Your task to perform on an android device: check battery use Image 0: 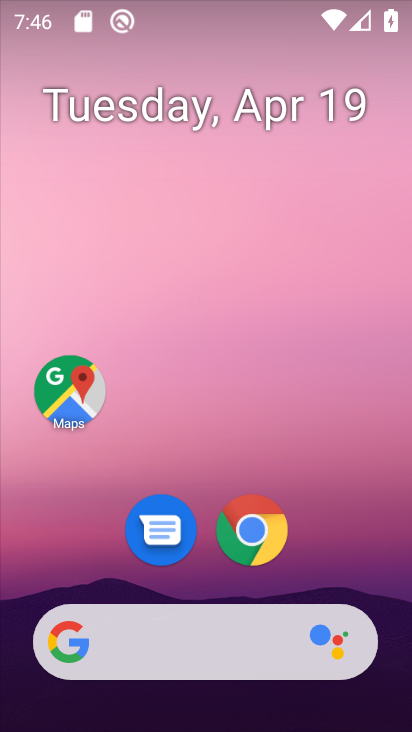
Step 0: drag from (231, 505) to (305, 180)
Your task to perform on an android device: check battery use Image 1: 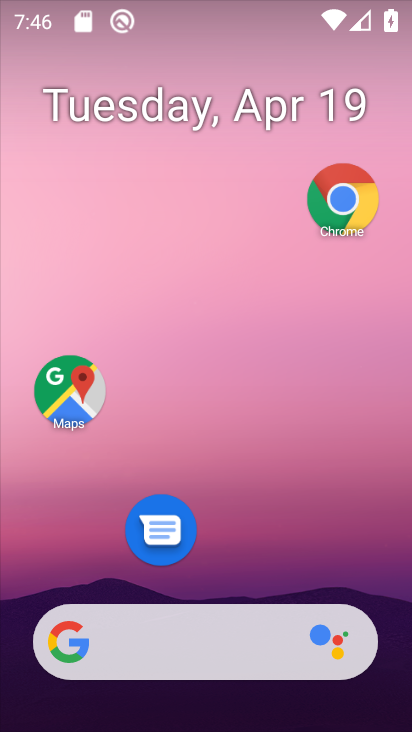
Step 1: drag from (214, 583) to (274, 151)
Your task to perform on an android device: check battery use Image 2: 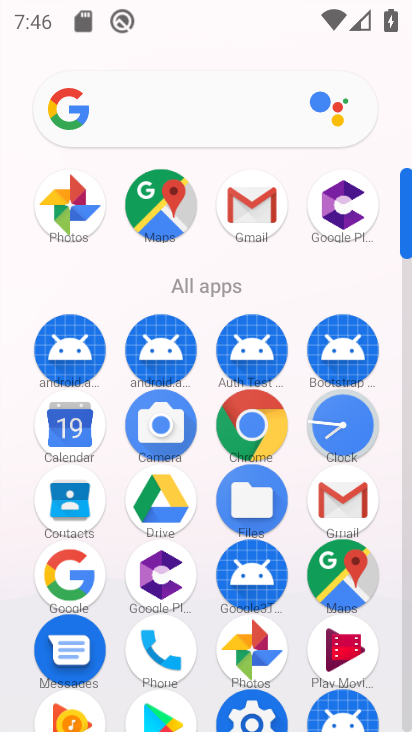
Step 2: drag from (196, 591) to (253, 150)
Your task to perform on an android device: check battery use Image 3: 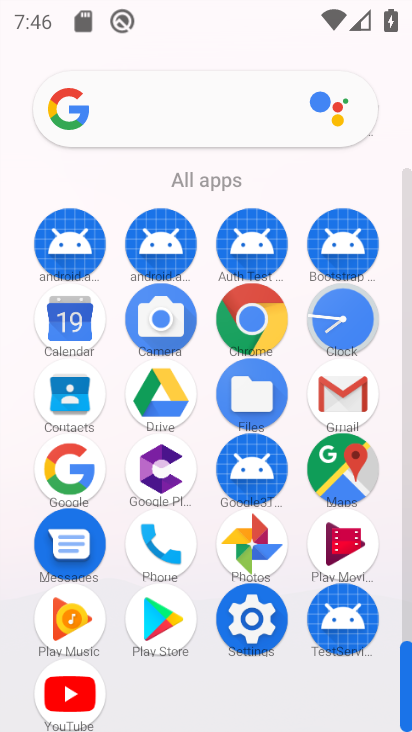
Step 3: click (248, 622)
Your task to perform on an android device: check battery use Image 4: 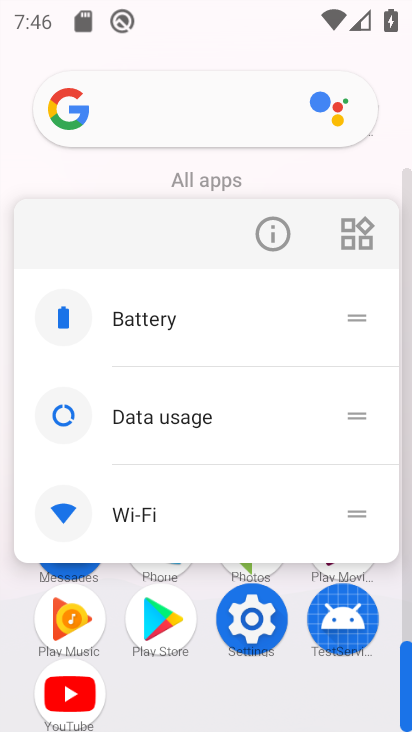
Step 4: click (263, 227)
Your task to perform on an android device: check battery use Image 5: 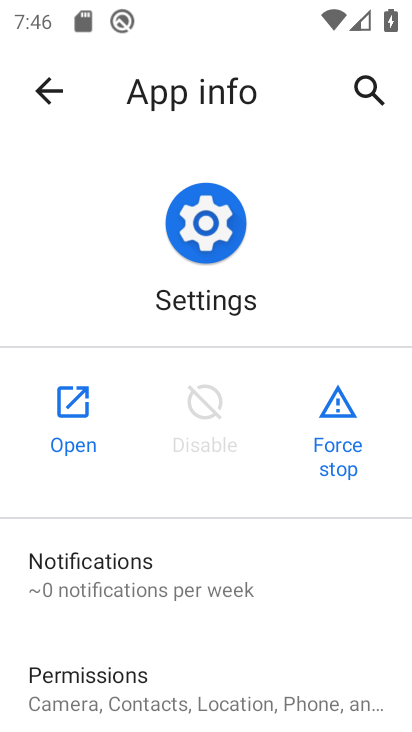
Step 5: click (68, 431)
Your task to perform on an android device: check battery use Image 6: 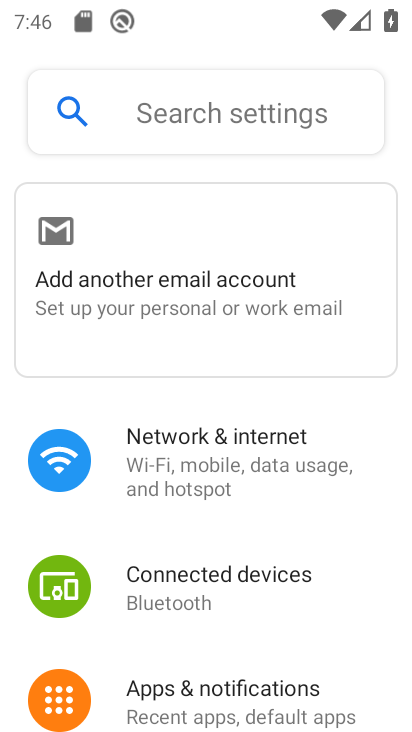
Step 6: drag from (236, 648) to (345, 205)
Your task to perform on an android device: check battery use Image 7: 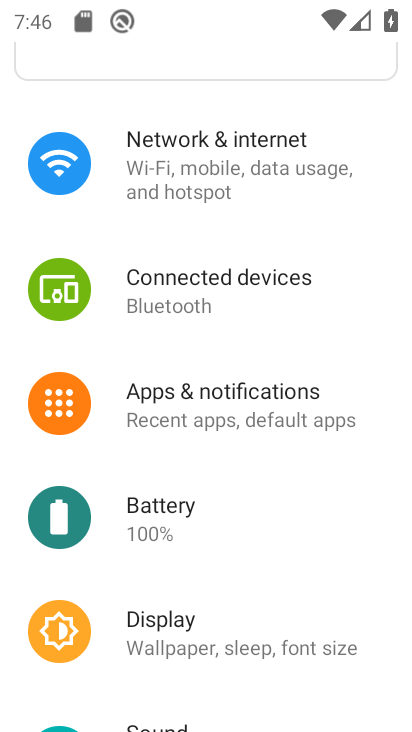
Step 7: click (187, 531)
Your task to perform on an android device: check battery use Image 8: 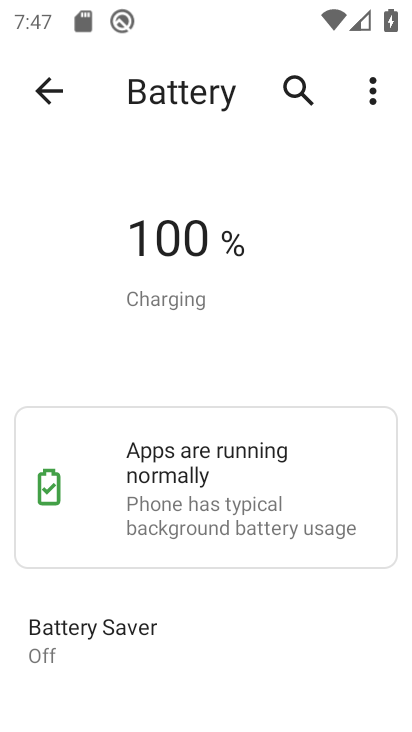
Step 8: click (366, 102)
Your task to perform on an android device: check battery use Image 9: 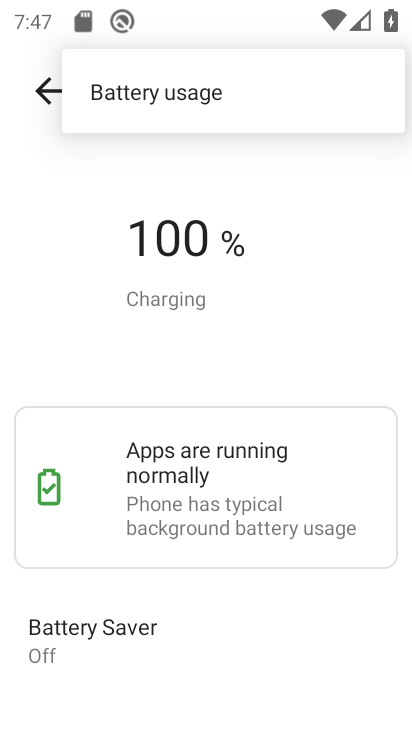
Step 9: click (193, 90)
Your task to perform on an android device: check battery use Image 10: 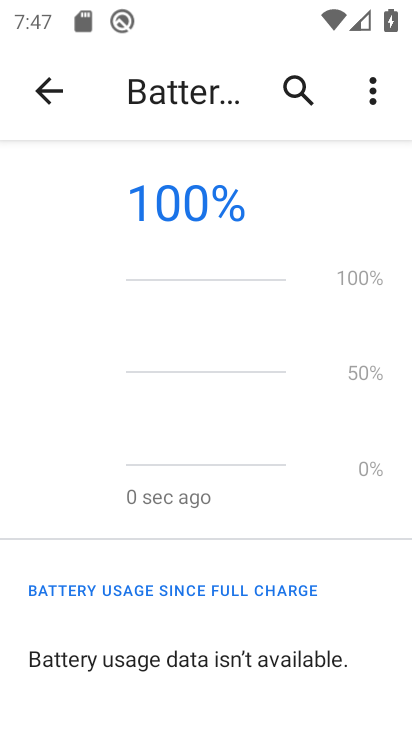
Step 10: task complete